Your task to perform on an android device: check the backup settings in the google photos Image 0: 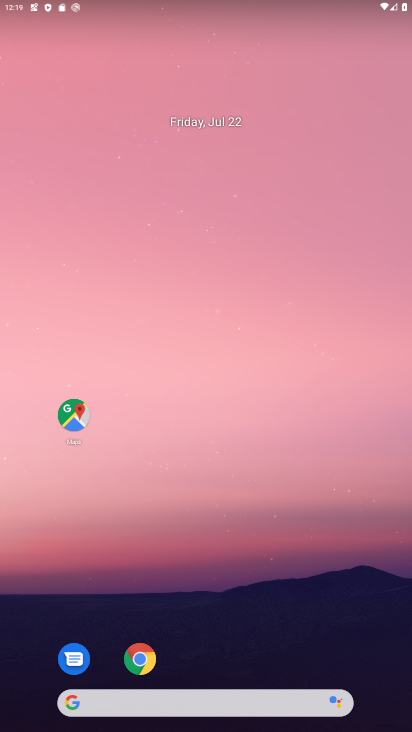
Step 0: press home button
Your task to perform on an android device: check the backup settings in the google photos Image 1: 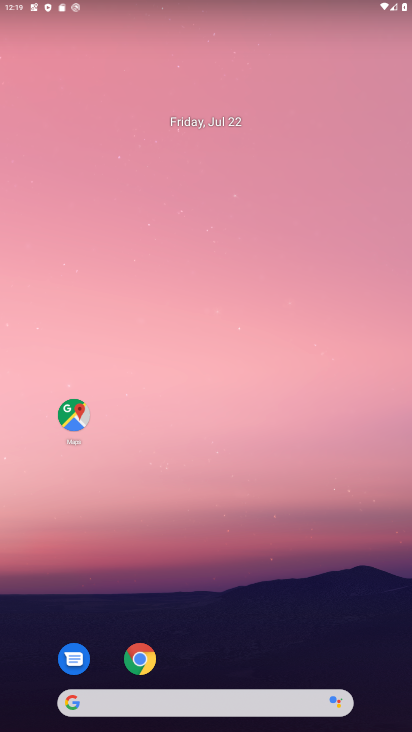
Step 1: drag from (177, 586) to (180, 193)
Your task to perform on an android device: check the backup settings in the google photos Image 2: 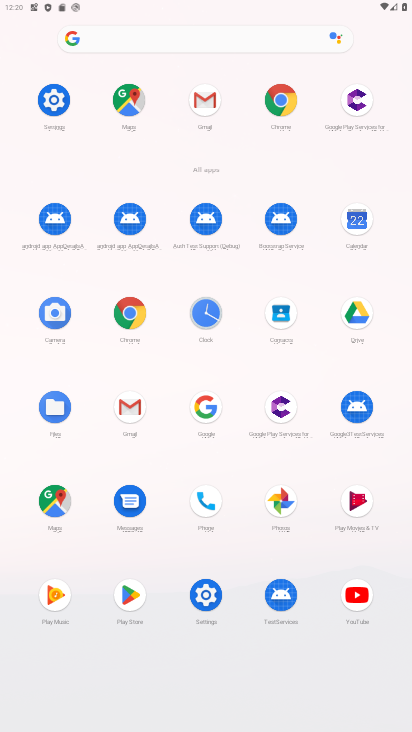
Step 2: click (285, 511)
Your task to perform on an android device: check the backup settings in the google photos Image 3: 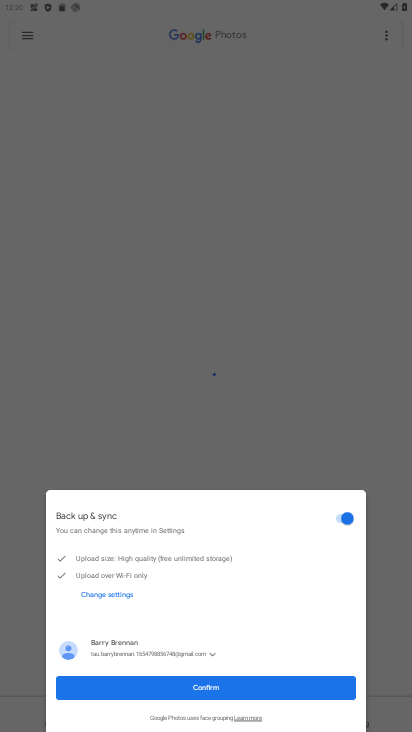
Step 3: click (187, 677)
Your task to perform on an android device: check the backup settings in the google photos Image 4: 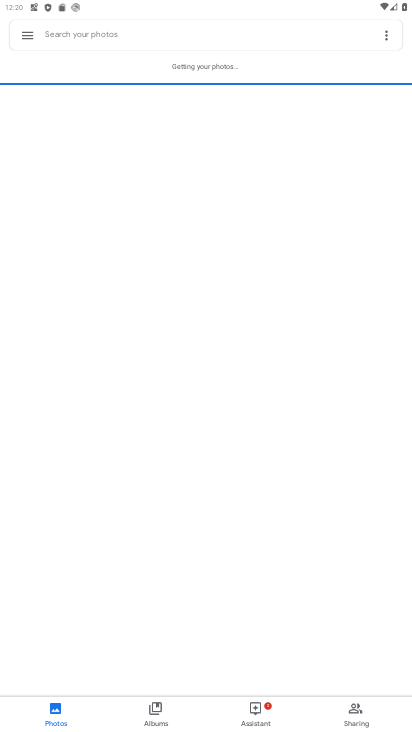
Step 4: click (22, 38)
Your task to perform on an android device: check the backup settings in the google photos Image 5: 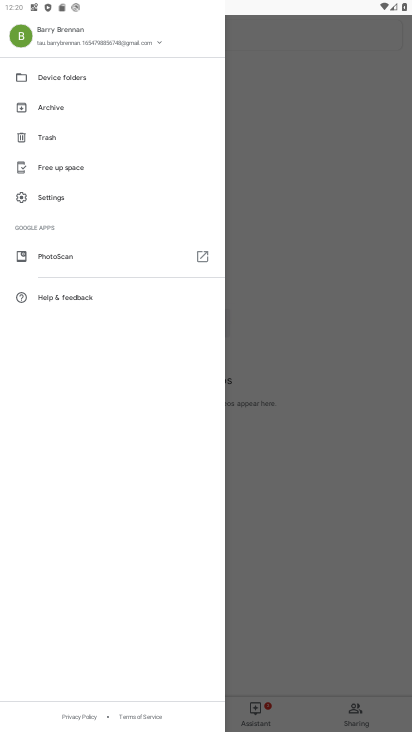
Step 5: click (42, 199)
Your task to perform on an android device: check the backup settings in the google photos Image 6: 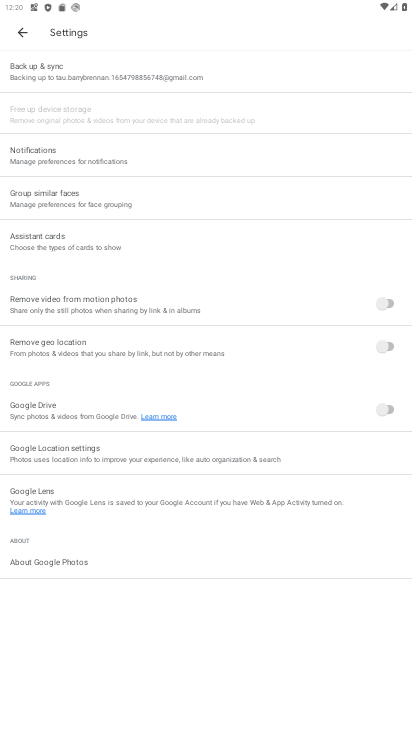
Step 6: click (59, 73)
Your task to perform on an android device: check the backup settings in the google photos Image 7: 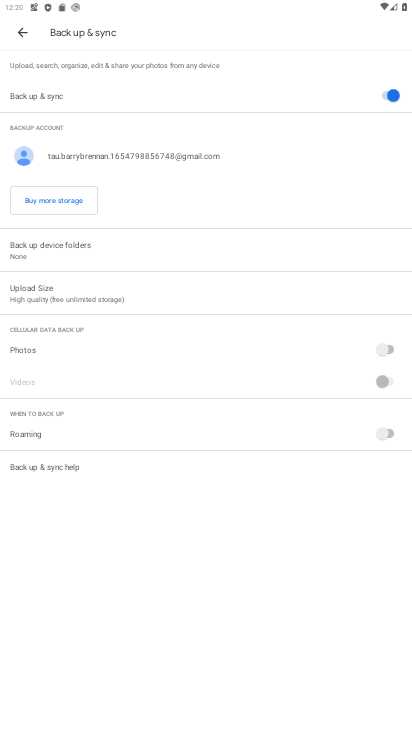
Step 7: task complete